Your task to perform on an android device: Go to Yahoo.com Image 0: 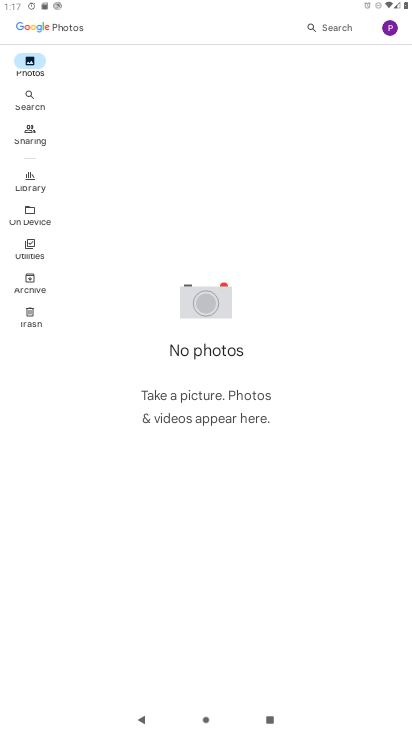
Step 0: press home button
Your task to perform on an android device: Go to Yahoo.com Image 1: 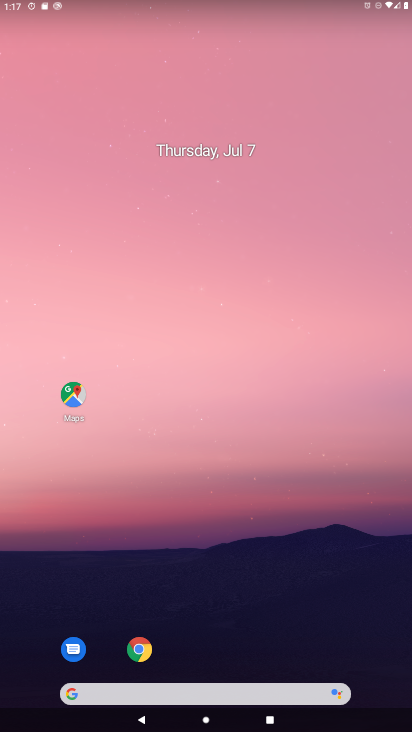
Step 1: click (145, 654)
Your task to perform on an android device: Go to Yahoo.com Image 2: 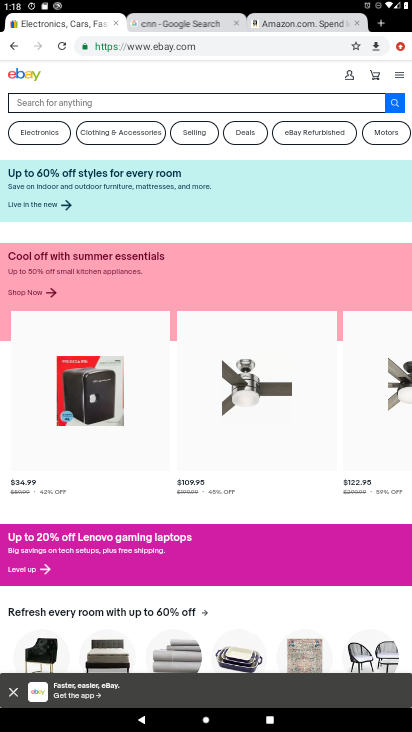
Step 2: click (376, 20)
Your task to perform on an android device: Go to Yahoo.com Image 3: 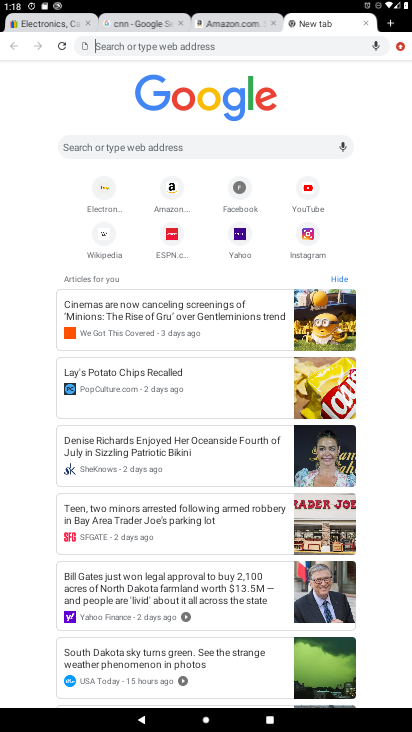
Step 3: click (238, 239)
Your task to perform on an android device: Go to Yahoo.com Image 4: 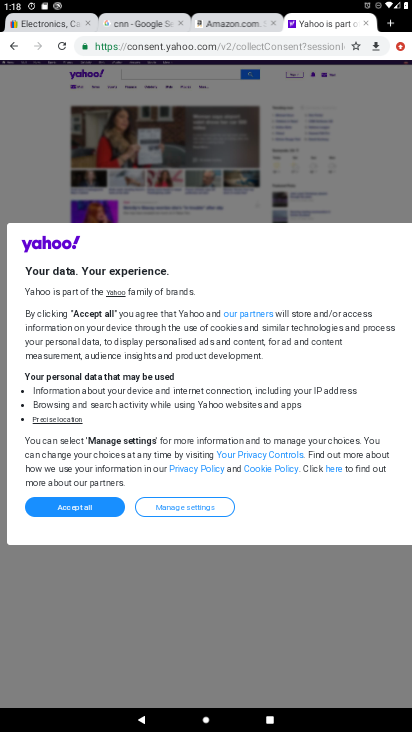
Step 4: click (87, 512)
Your task to perform on an android device: Go to Yahoo.com Image 5: 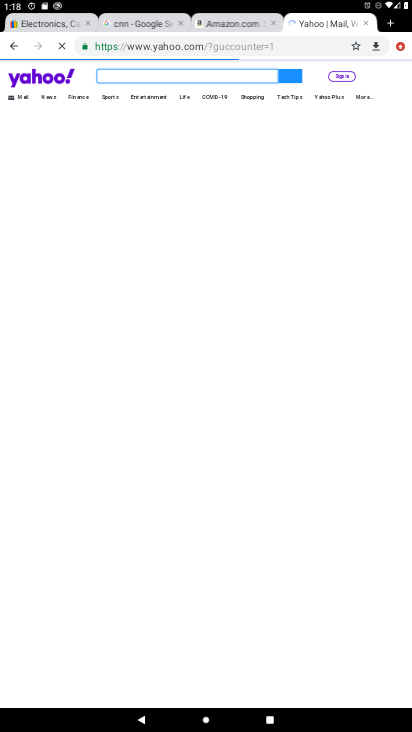
Step 5: click (87, 512)
Your task to perform on an android device: Go to Yahoo.com Image 6: 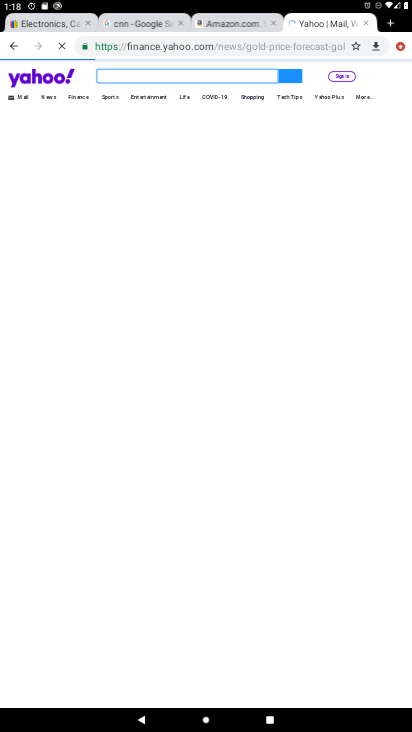
Step 6: task complete